Your task to perform on an android device: Open location settings Image 0: 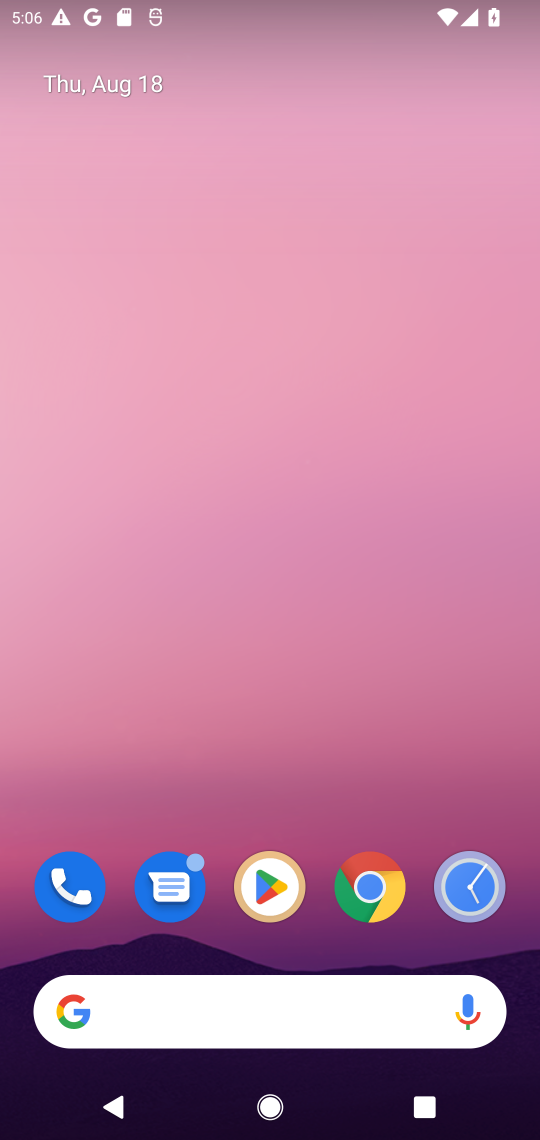
Step 0: drag from (377, 718) to (430, 223)
Your task to perform on an android device: Open location settings Image 1: 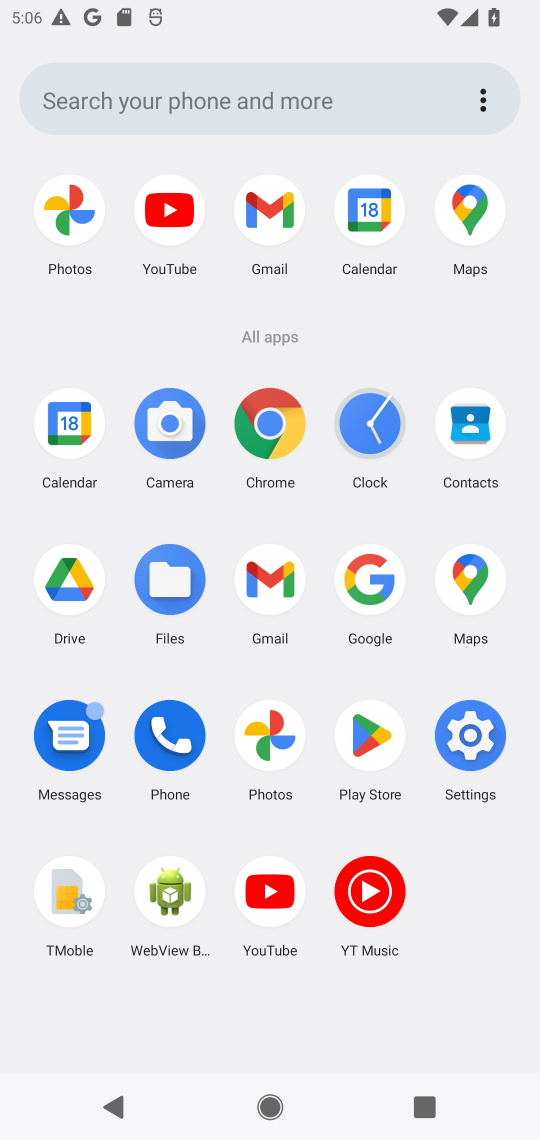
Step 1: click (276, 445)
Your task to perform on an android device: Open location settings Image 2: 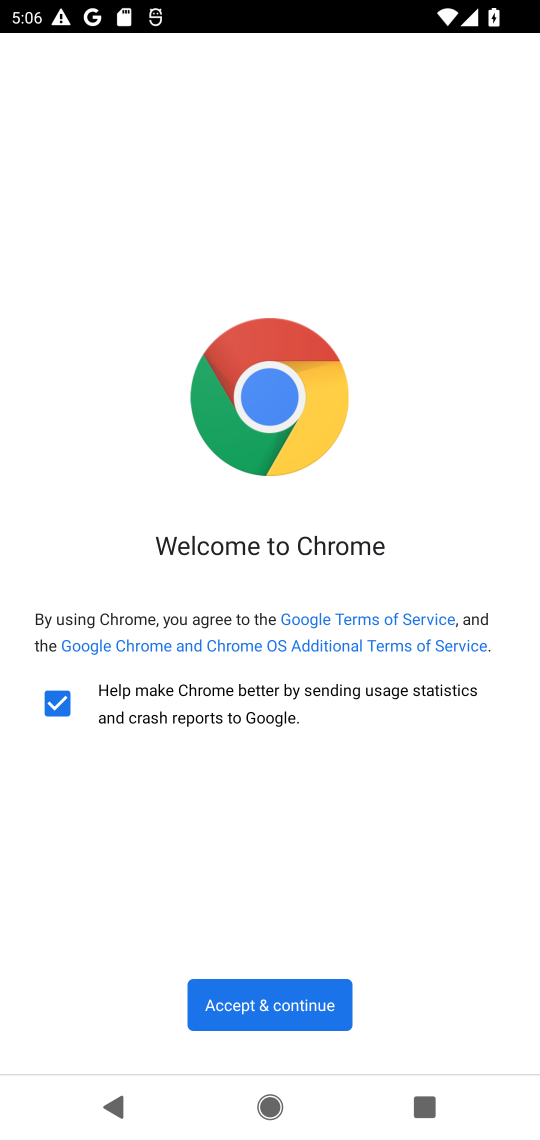
Step 2: task complete